Your task to perform on an android device: change notification settings in the gmail app Image 0: 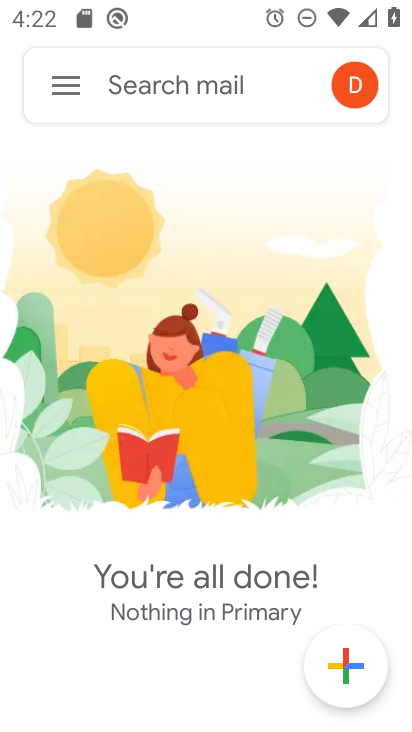
Step 0: press home button
Your task to perform on an android device: change notification settings in the gmail app Image 1: 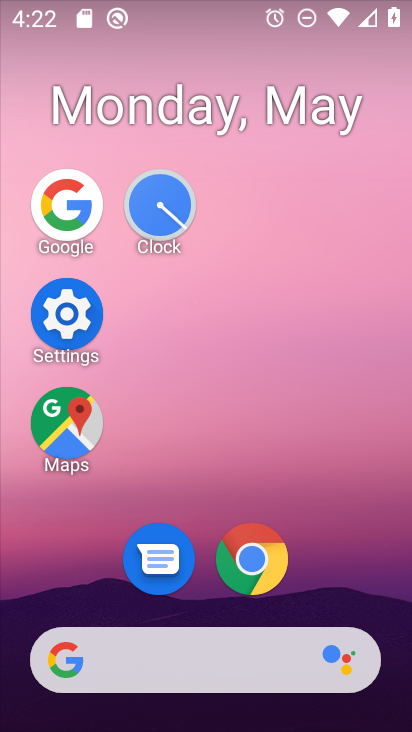
Step 1: drag from (332, 595) to (323, 200)
Your task to perform on an android device: change notification settings in the gmail app Image 2: 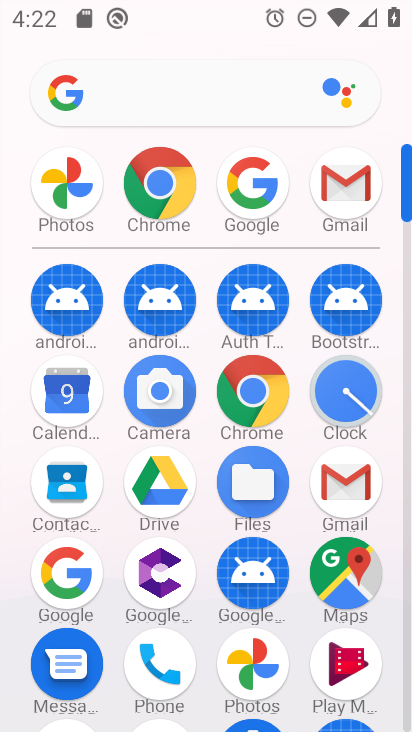
Step 2: click (340, 192)
Your task to perform on an android device: change notification settings in the gmail app Image 3: 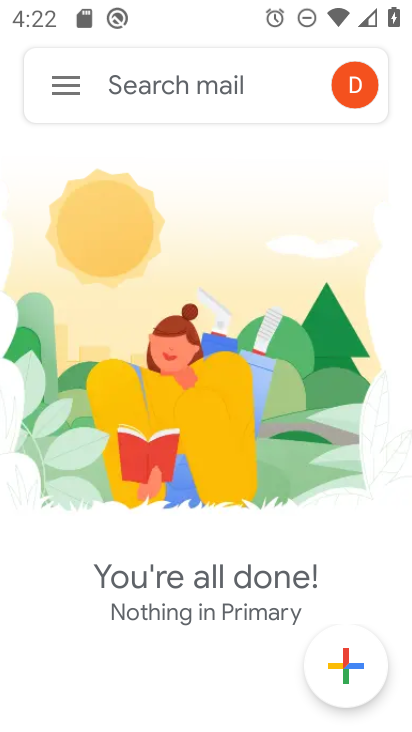
Step 3: click (54, 88)
Your task to perform on an android device: change notification settings in the gmail app Image 4: 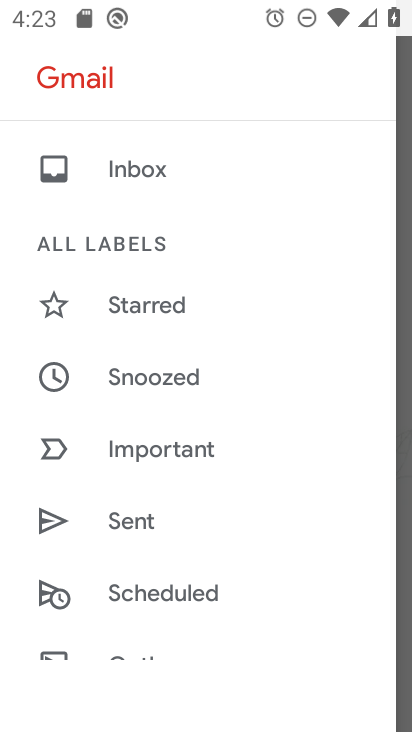
Step 4: drag from (250, 559) to (289, 63)
Your task to perform on an android device: change notification settings in the gmail app Image 5: 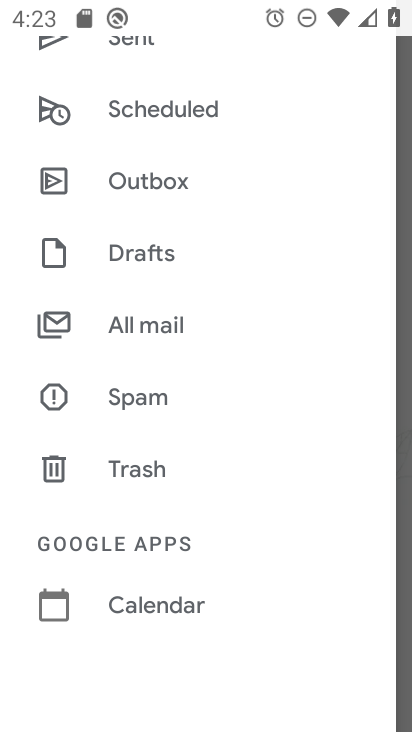
Step 5: drag from (222, 537) to (258, 166)
Your task to perform on an android device: change notification settings in the gmail app Image 6: 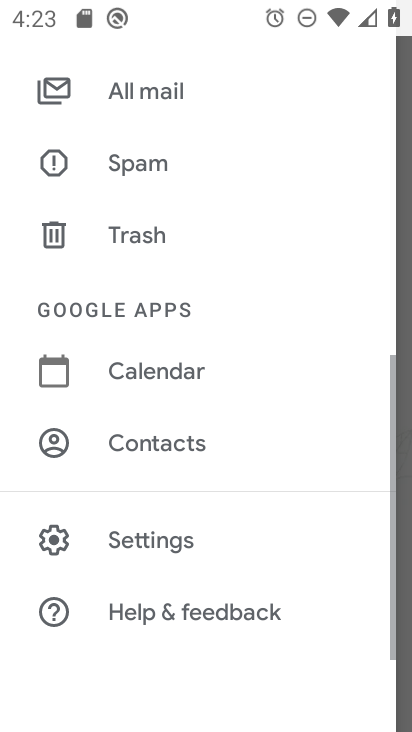
Step 6: click (193, 533)
Your task to perform on an android device: change notification settings in the gmail app Image 7: 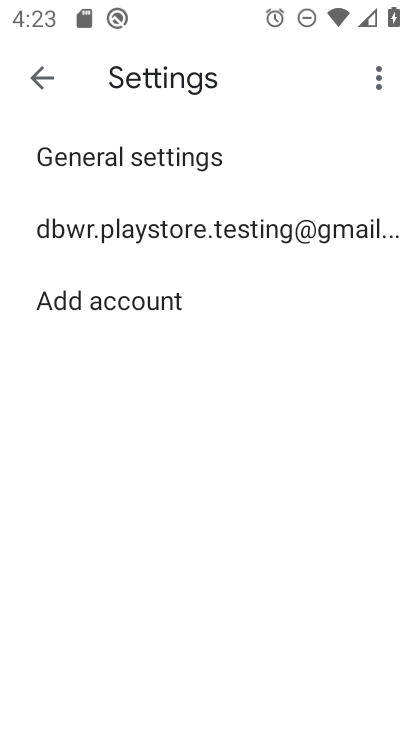
Step 7: click (196, 241)
Your task to perform on an android device: change notification settings in the gmail app Image 8: 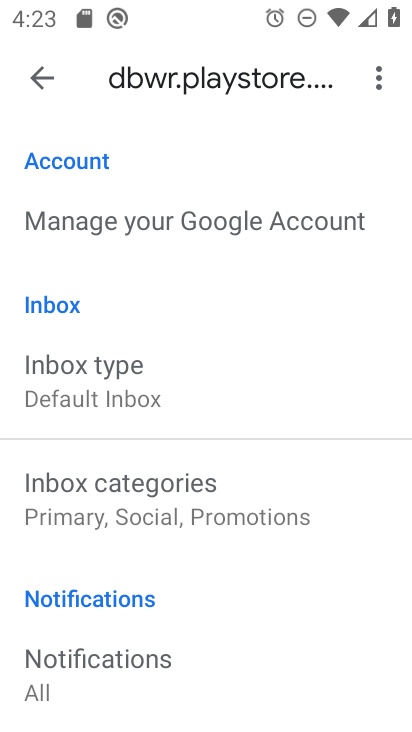
Step 8: click (174, 646)
Your task to perform on an android device: change notification settings in the gmail app Image 9: 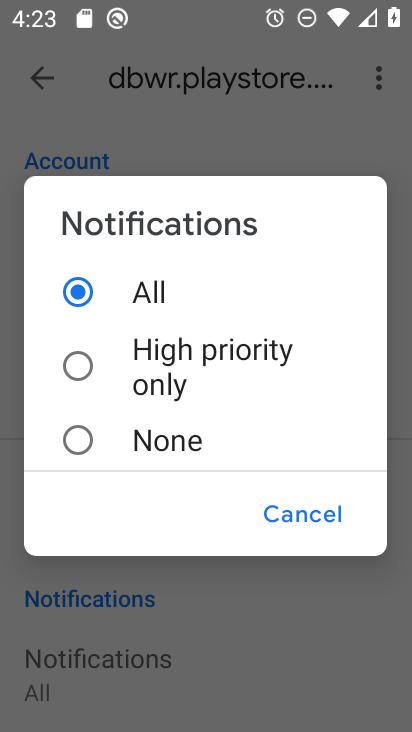
Step 9: click (153, 392)
Your task to perform on an android device: change notification settings in the gmail app Image 10: 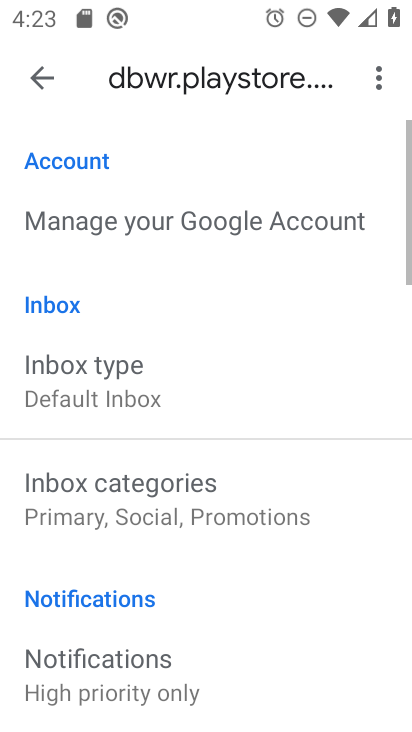
Step 10: task complete